Your task to perform on an android device: Open Google Chrome and click the shortcut for Amazon.com Image 0: 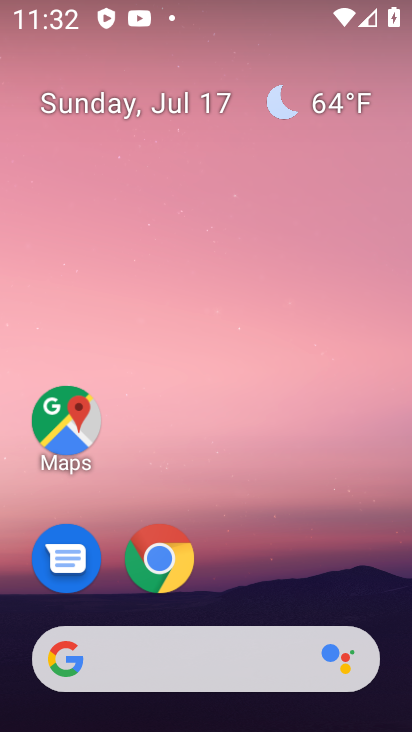
Step 0: drag from (371, 585) to (403, 94)
Your task to perform on an android device: Open Google Chrome and click the shortcut for Amazon.com Image 1: 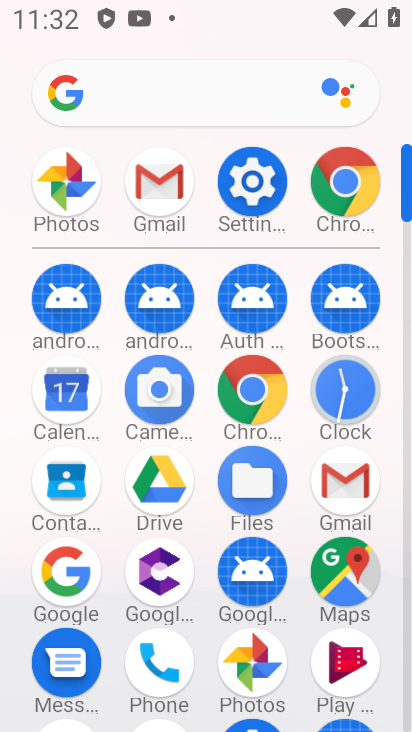
Step 1: click (268, 388)
Your task to perform on an android device: Open Google Chrome and click the shortcut for Amazon.com Image 2: 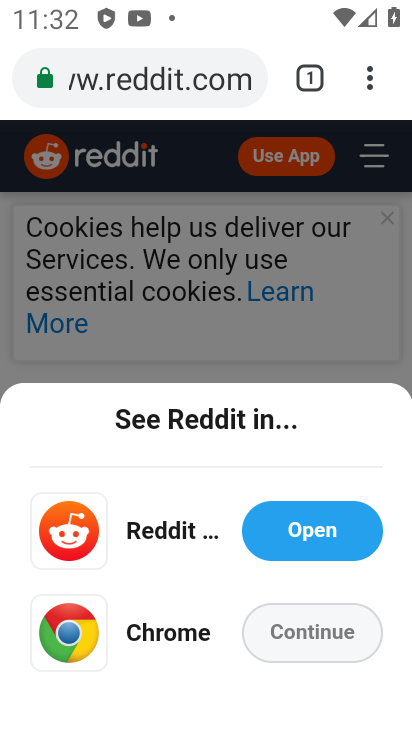
Step 2: press back button
Your task to perform on an android device: Open Google Chrome and click the shortcut for Amazon.com Image 3: 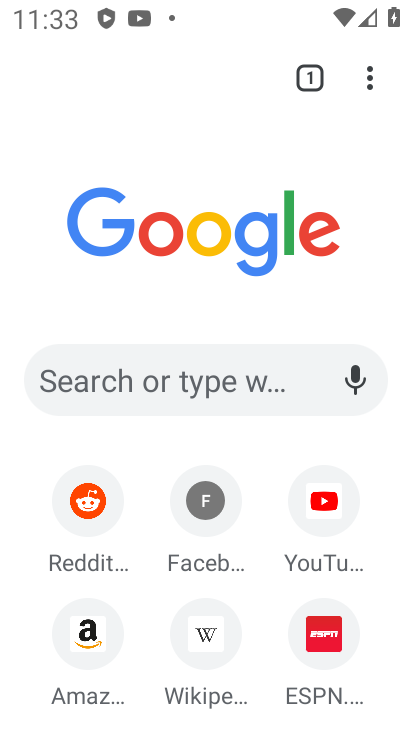
Step 3: click (92, 641)
Your task to perform on an android device: Open Google Chrome and click the shortcut for Amazon.com Image 4: 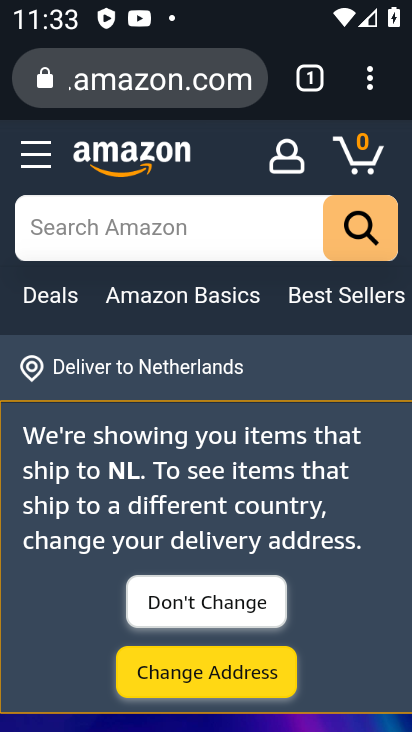
Step 4: task complete